Your task to perform on an android device: Clear the cart on amazon.com. Add razer huntsman to the cart on amazon.com, then select checkout. Image 0: 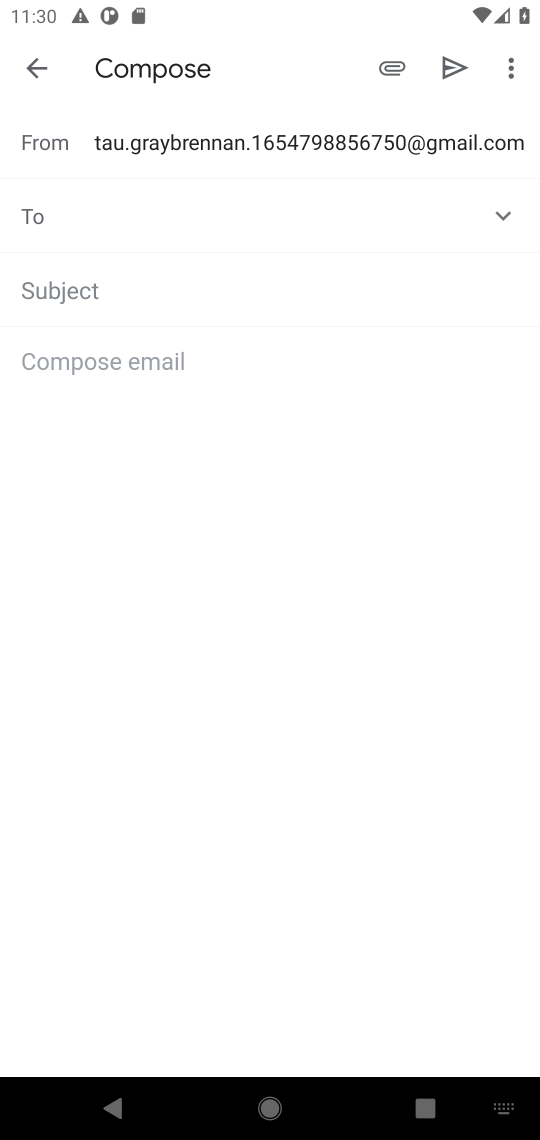
Step 0: press home button
Your task to perform on an android device: Clear the cart on amazon.com. Add razer huntsman to the cart on amazon.com, then select checkout. Image 1: 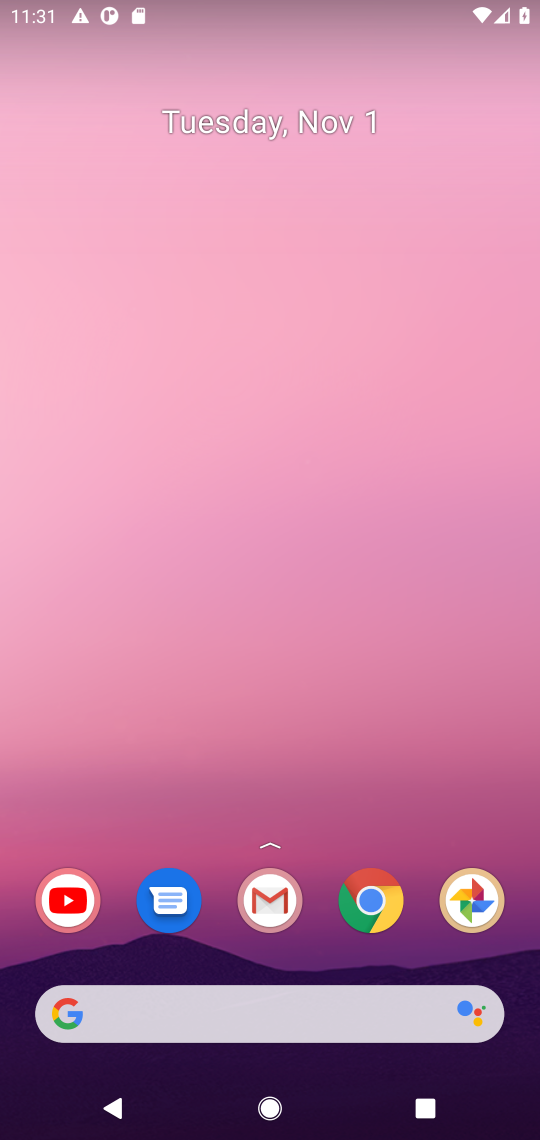
Step 1: click (377, 887)
Your task to perform on an android device: Clear the cart on amazon.com. Add razer huntsman to the cart on amazon.com, then select checkout. Image 2: 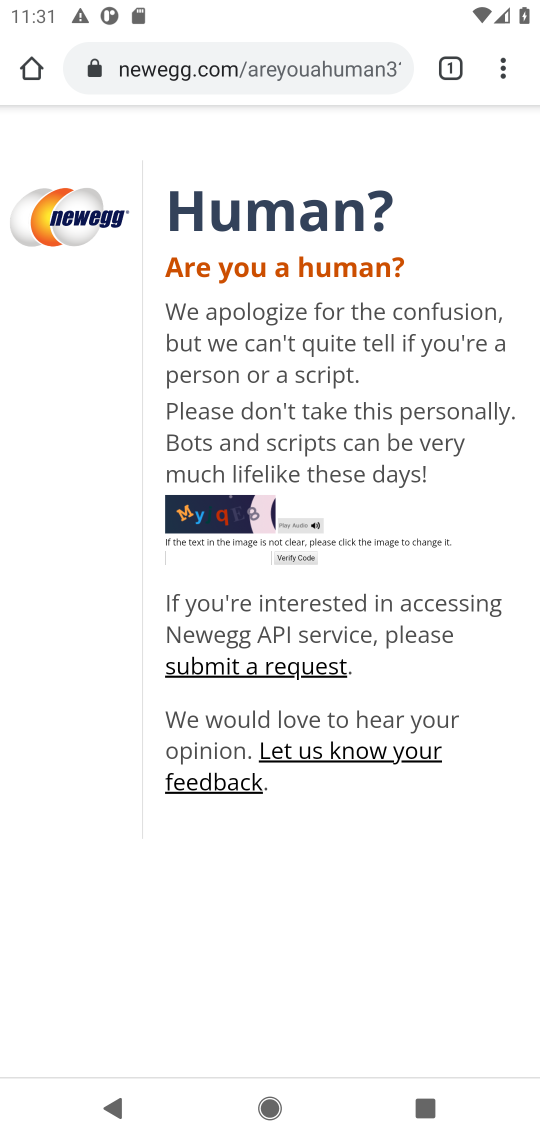
Step 2: click (271, 72)
Your task to perform on an android device: Clear the cart on amazon.com. Add razer huntsman to the cart on amazon.com, then select checkout. Image 3: 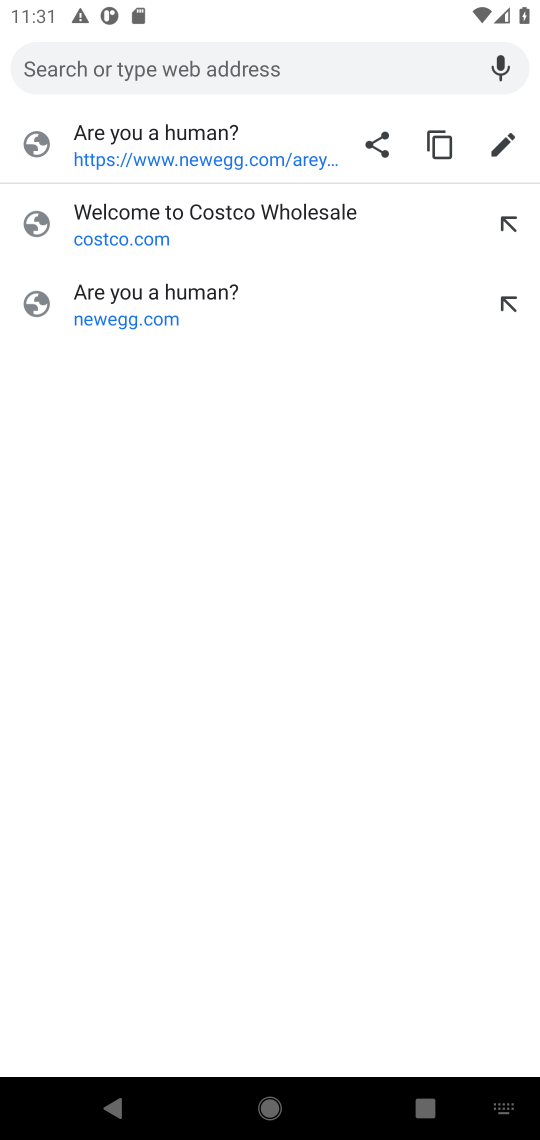
Step 3: type "amazon"
Your task to perform on an android device: Clear the cart on amazon.com. Add razer huntsman to the cart on amazon.com, then select checkout. Image 4: 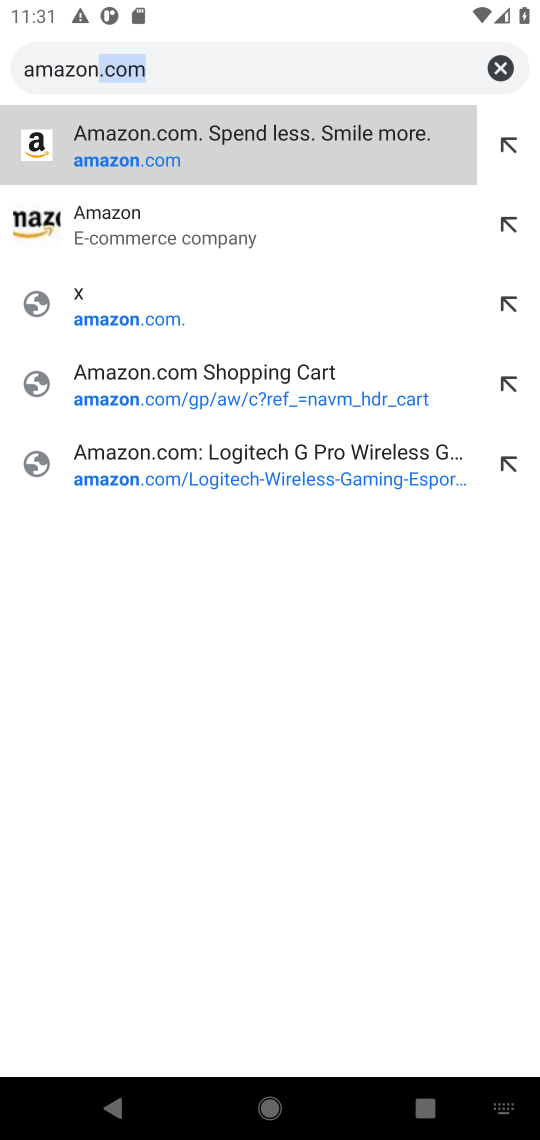
Step 4: type ""
Your task to perform on an android device: Clear the cart on amazon.com. Add razer huntsman to the cart on amazon.com, then select checkout. Image 5: 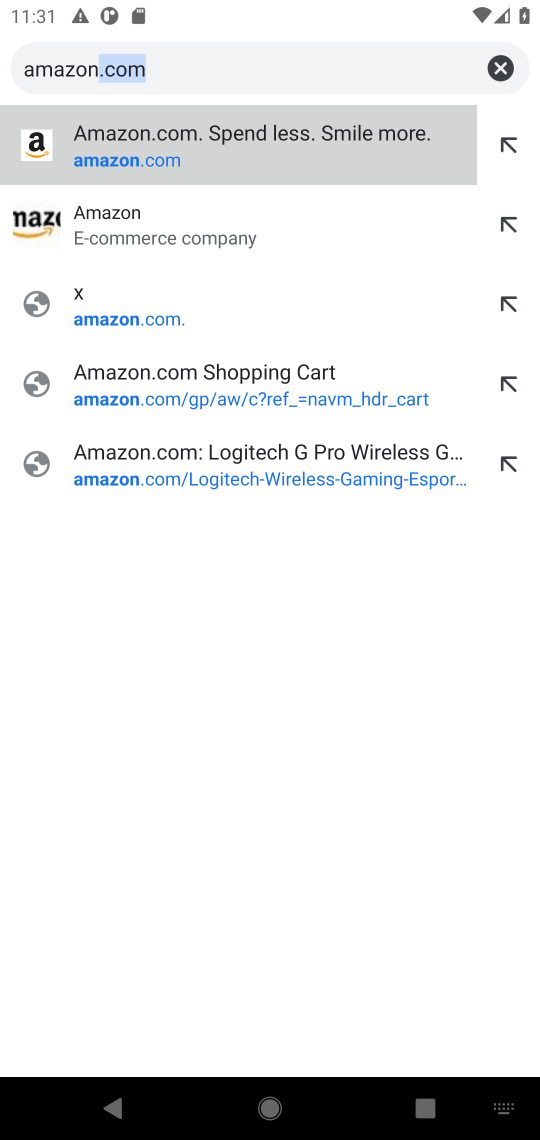
Step 5: click (122, 149)
Your task to perform on an android device: Clear the cart on amazon.com. Add razer huntsman to the cart on amazon.com, then select checkout. Image 6: 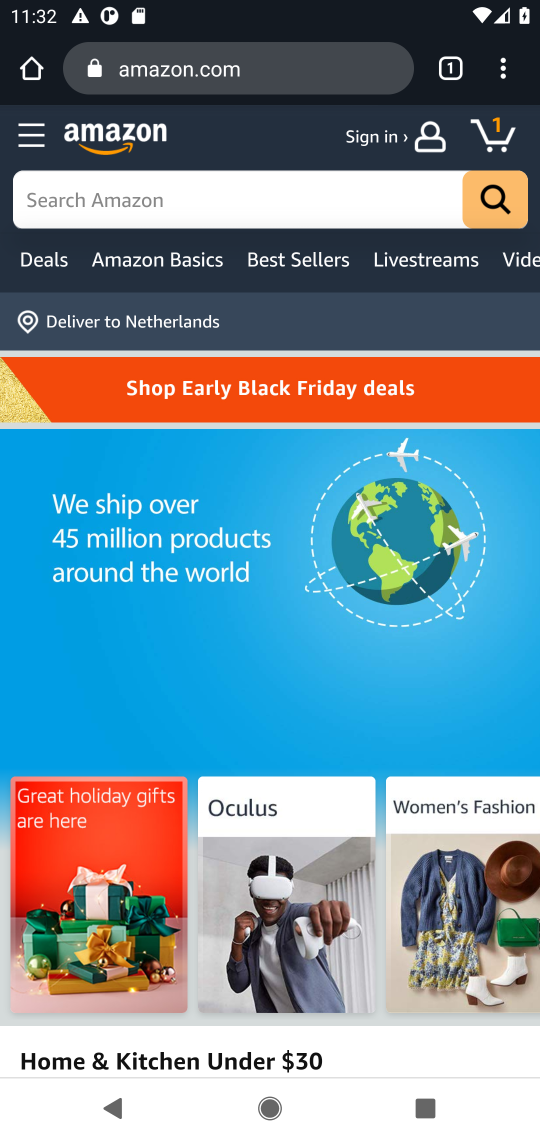
Step 6: click (492, 147)
Your task to perform on an android device: Clear the cart on amazon.com. Add razer huntsman to the cart on amazon.com, then select checkout. Image 7: 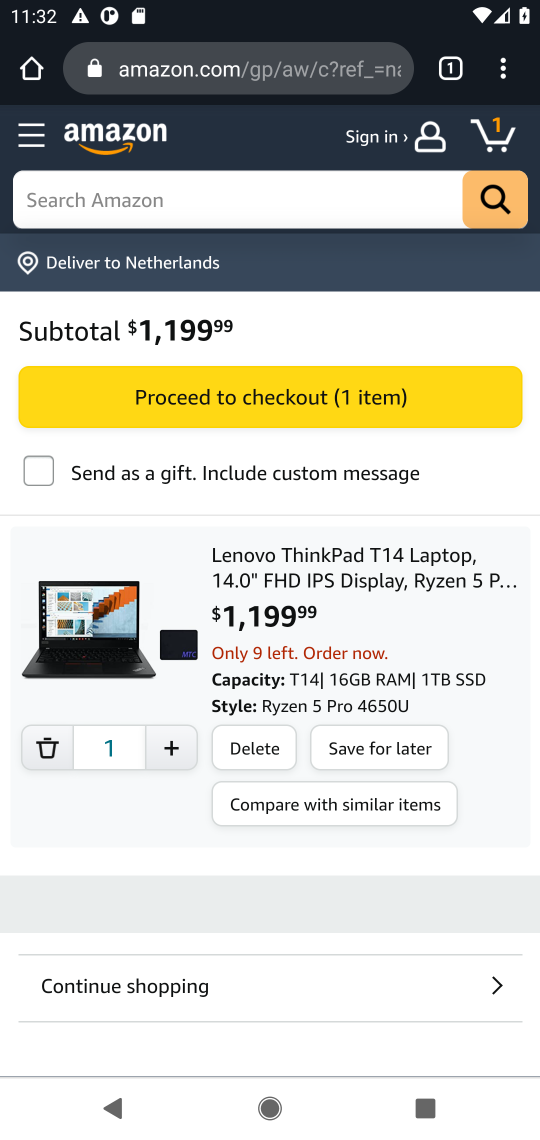
Step 7: click (258, 739)
Your task to perform on an android device: Clear the cart on amazon.com. Add razer huntsman to the cart on amazon.com, then select checkout. Image 8: 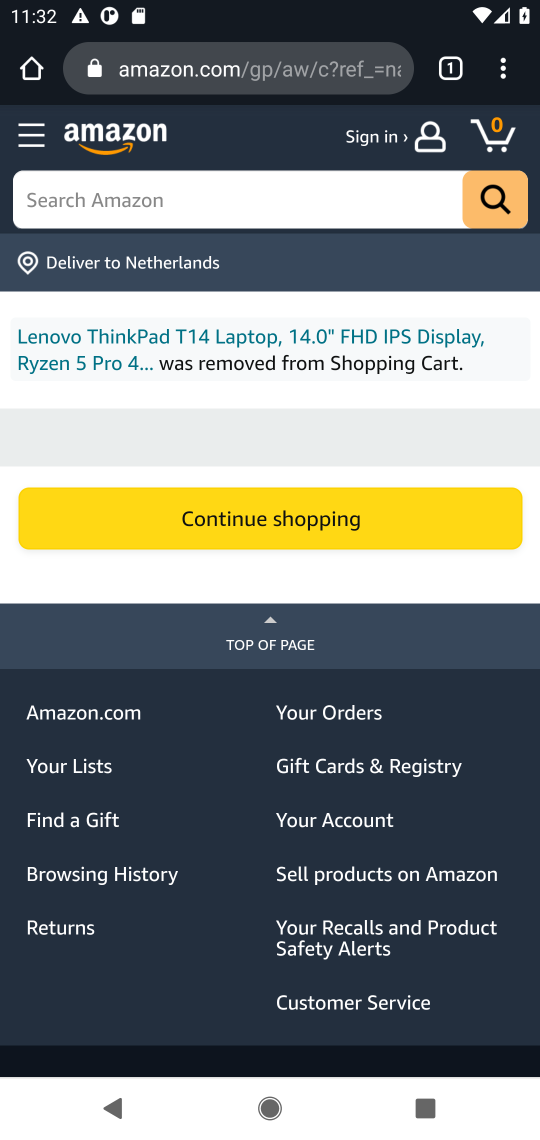
Step 8: click (165, 194)
Your task to perform on an android device: Clear the cart on amazon.com. Add razer huntsman to the cart on amazon.com, then select checkout. Image 9: 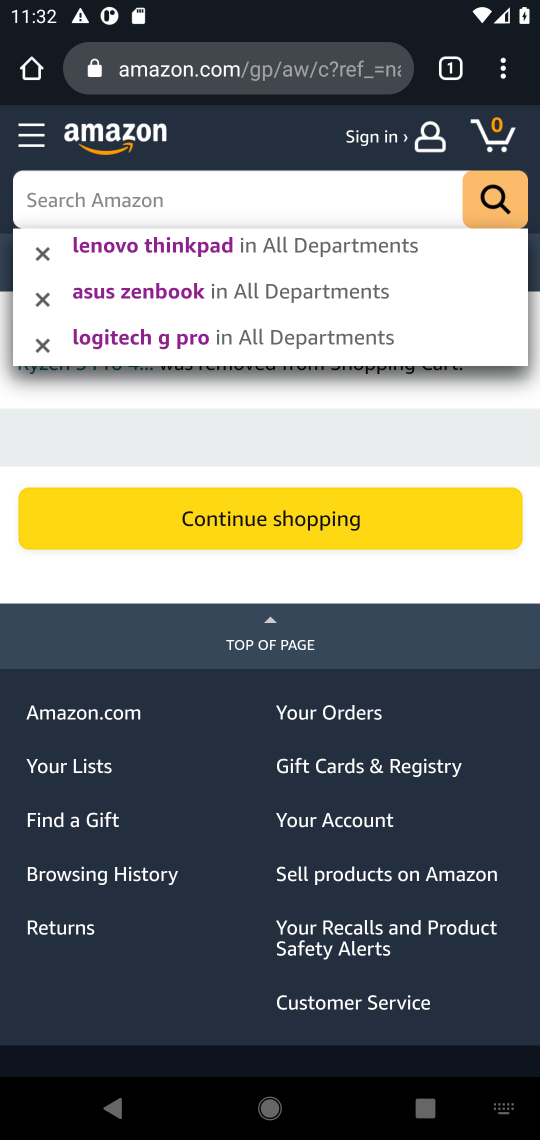
Step 9: type "razer huntsman "
Your task to perform on an android device: Clear the cart on amazon.com. Add razer huntsman to the cart on amazon.com, then select checkout. Image 10: 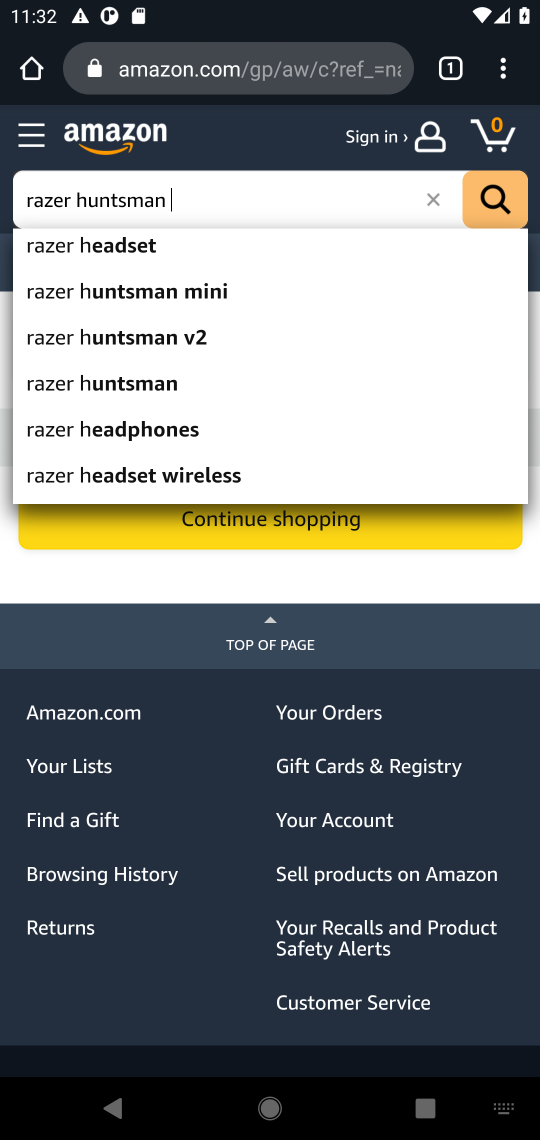
Step 10: type ""
Your task to perform on an android device: Clear the cart on amazon.com. Add razer huntsman to the cart on amazon.com, then select checkout. Image 11: 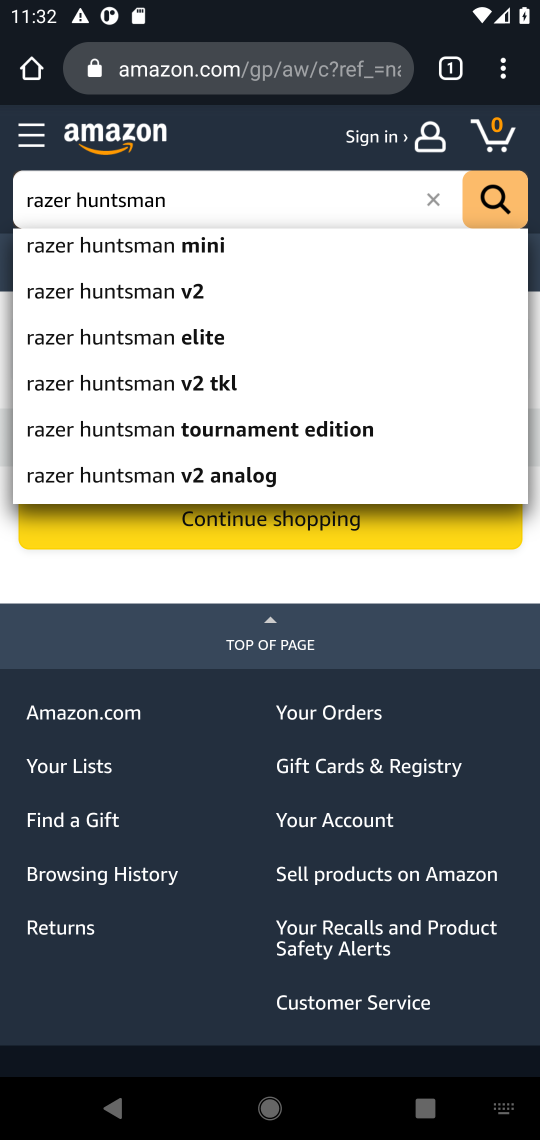
Step 11: click (489, 204)
Your task to perform on an android device: Clear the cart on amazon.com. Add razer huntsman to the cart on amazon.com, then select checkout. Image 12: 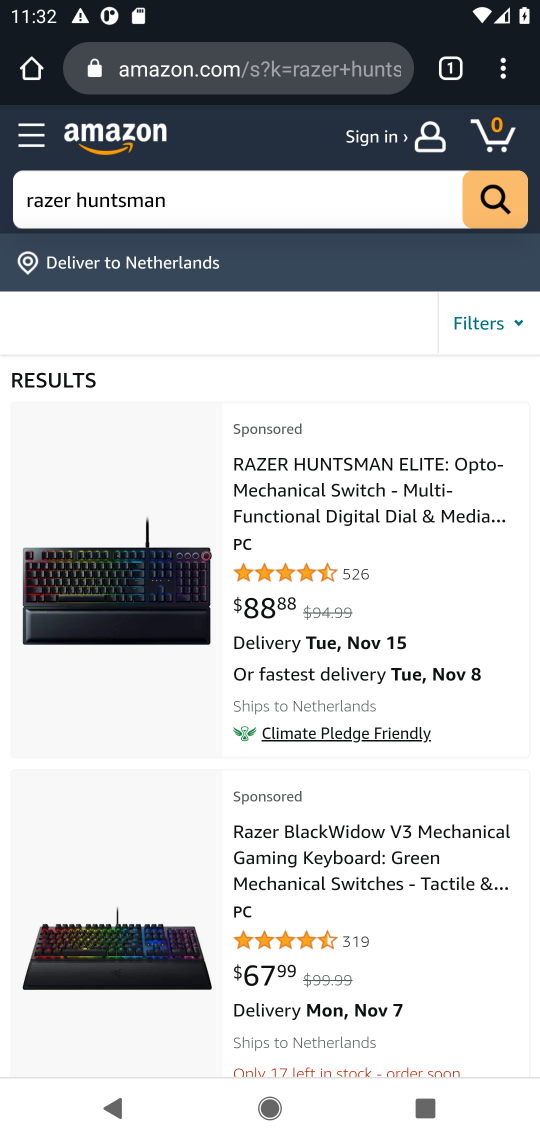
Step 12: click (285, 459)
Your task to perform on an android device: Clear the cart on amazon.com. Add razer huntsman to the cart on amazon.com, then select checkout. Image 13: 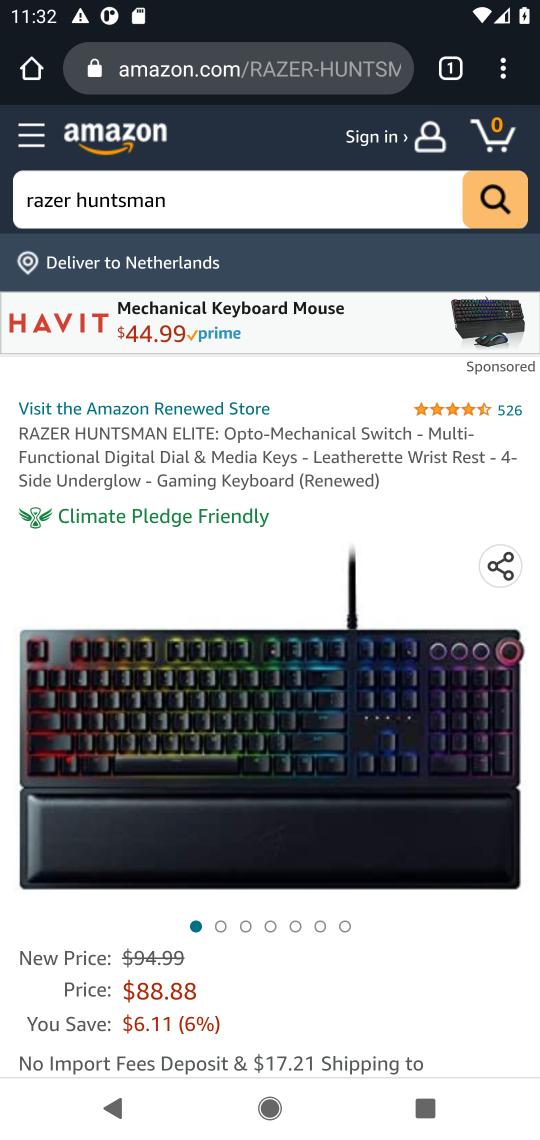
Step 13: drag from (293, 996) to (331, 380)
Your task to perform on an android device: Clear the cart on amazon.com. Add razer huntsman to the cart on amazon.com, then select checkout. Image 14: 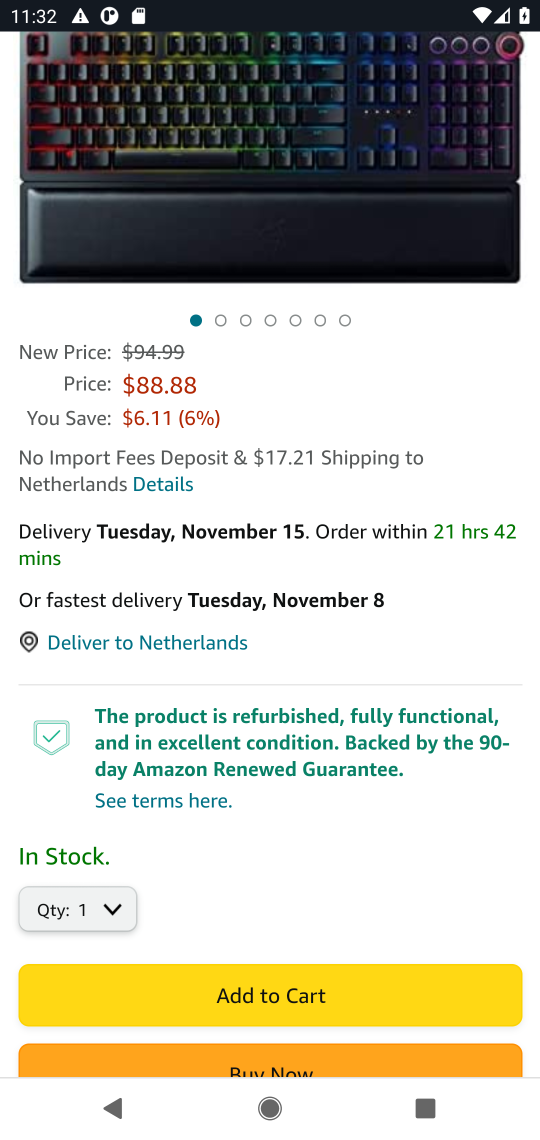
Step 14: click (248, 975)
Your task to perform on an android device: Clear the cart on amazon.com. Add razer huntsman to the cart on amazon.com, then select checkout. Image 15: 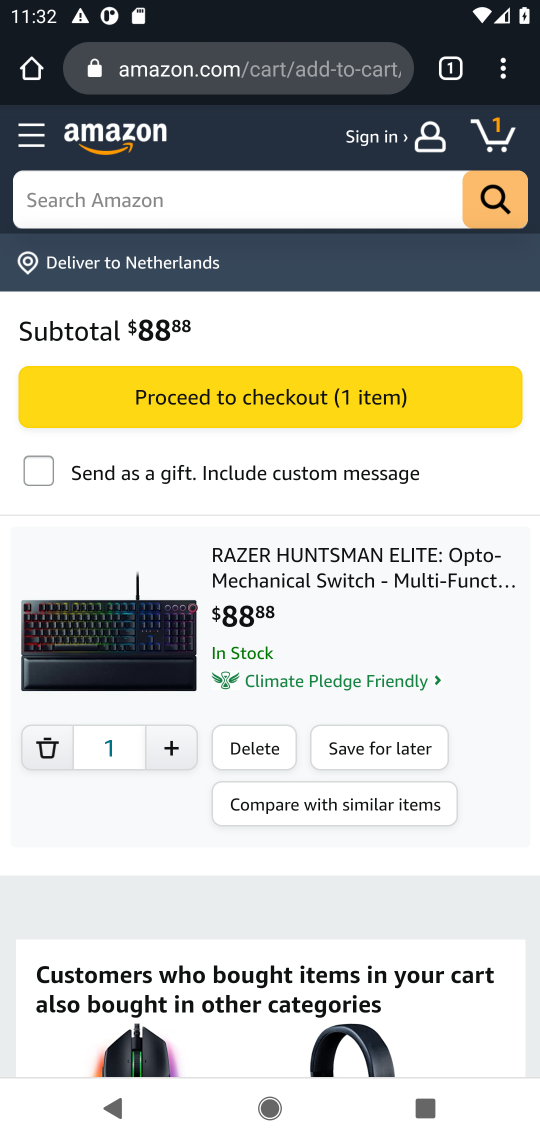
Step 15: click (329, 414)
Your task to perform on an android device: Clear the cart on amazon.com. Add razer huntsman to the cart on amazon.com, then select checkout. Image 16: 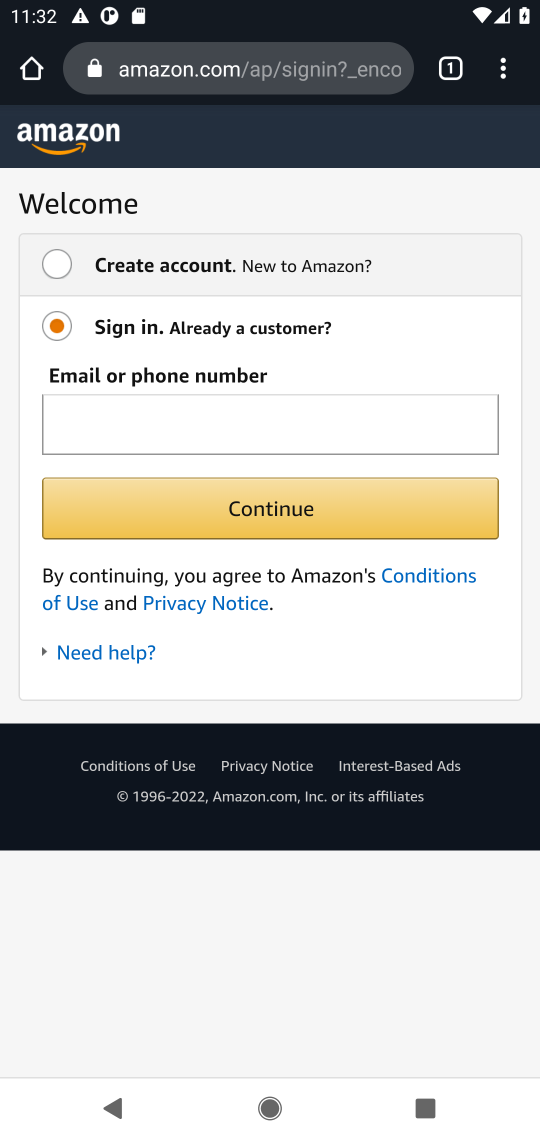
Step 16: task complete